Your task to perform on an android device: Do I have any events today? Image 0: 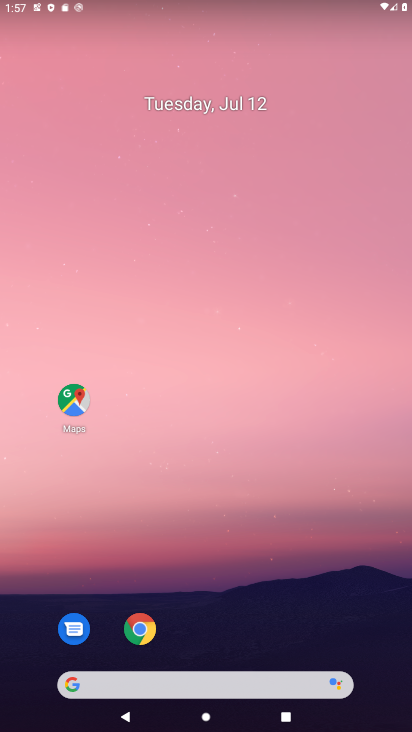
Step 0: drag from (322, 607) to (255, 116)
Your task to perform on an android device: Do I have any events today? Image 1: 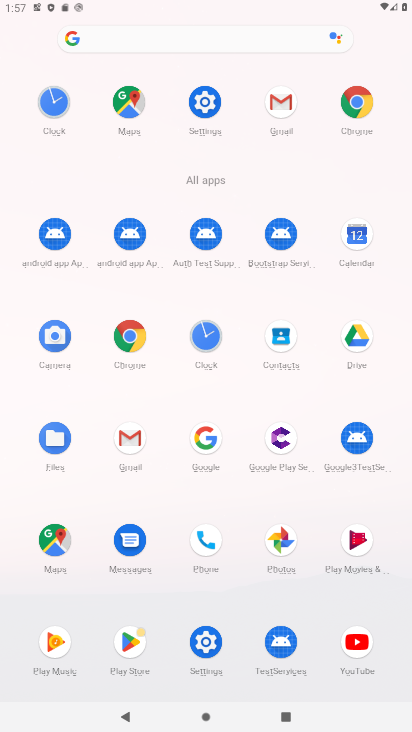
Step 1: click (362, 247)
Your task to perform on an android device: Do I have any events today? Image 2: 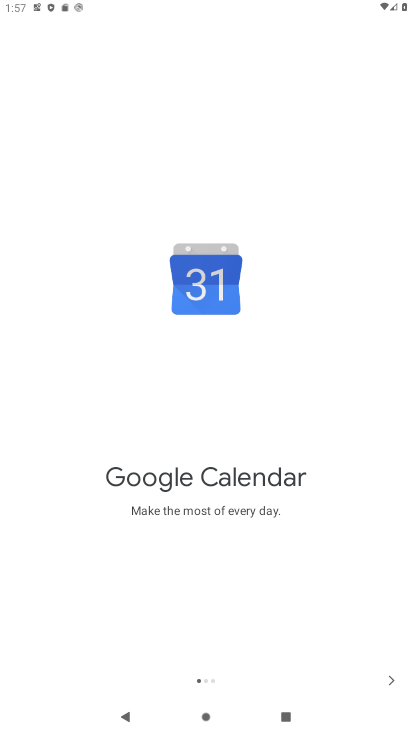
Step 2: click (388, 680)
Your task to perform on an android device: Do I have any events today? Image 3: 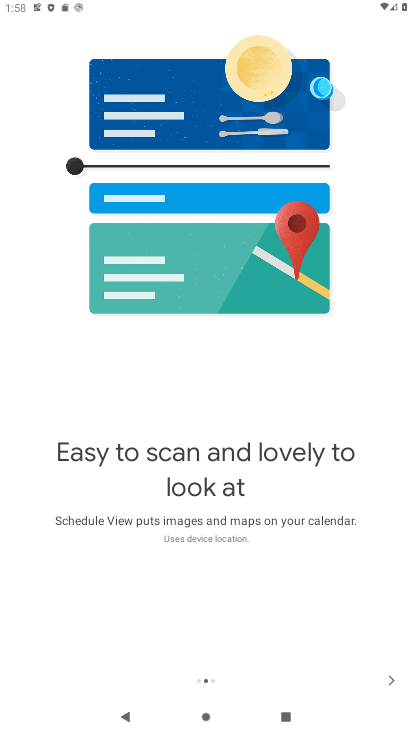
Step 3: click (388, 676)
Your task to perform on an android device: Do I have any events today? Image 4: 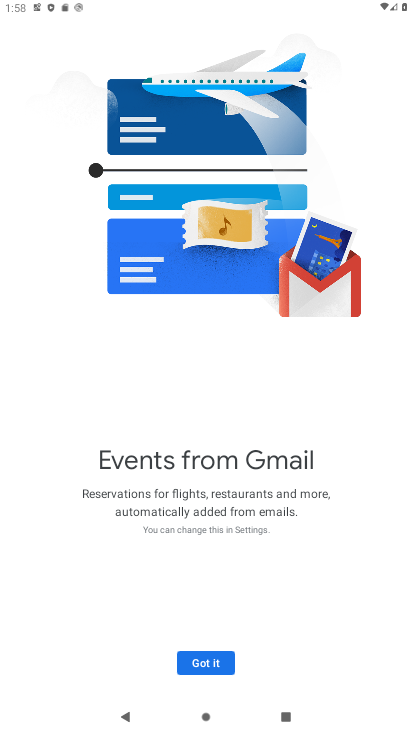
Step 4: click (223, 662)
Your task to perform on an android device: Do I have any events today? Image 5: 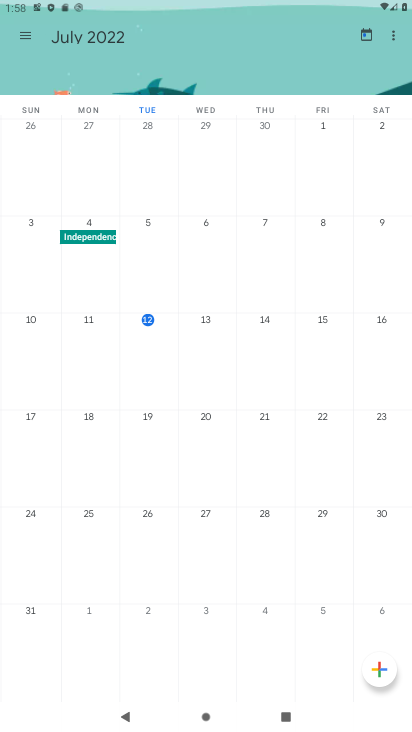
Step 5: click (27, 34)
Your task to perform on an android device: Do I have any events today? Image 6: 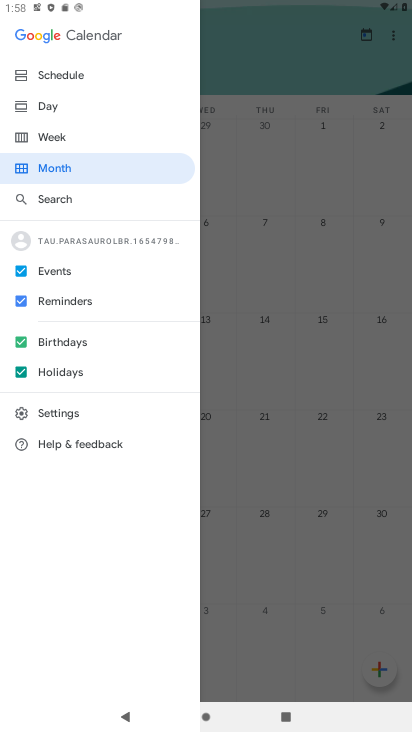
Step 6: click (20, 373)
Your task to perform on an android device: Do I have any events today? Image 7: 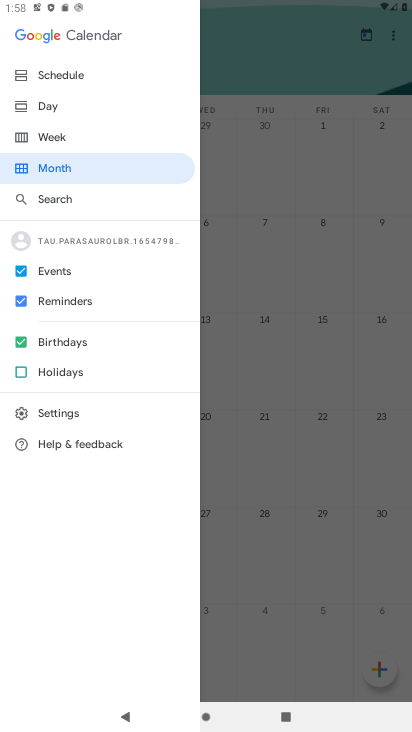
Step 7: click (21, 338)
Your task to perform on an android device: Do I have any events today? Image 8: 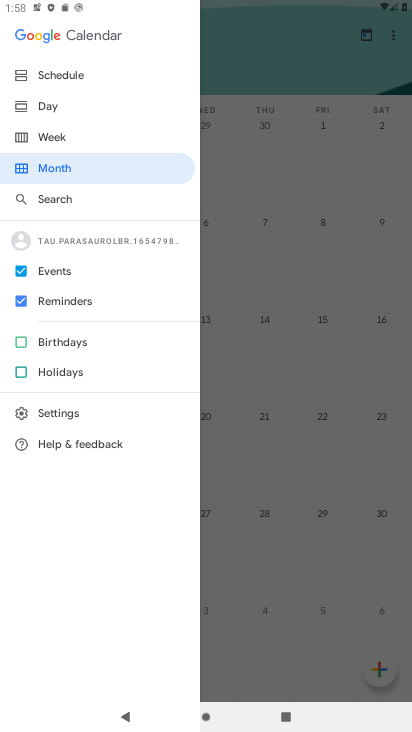
Step 8: click (20, 302)
Your task to perform on an android device: Do I have any events today? Image 9: 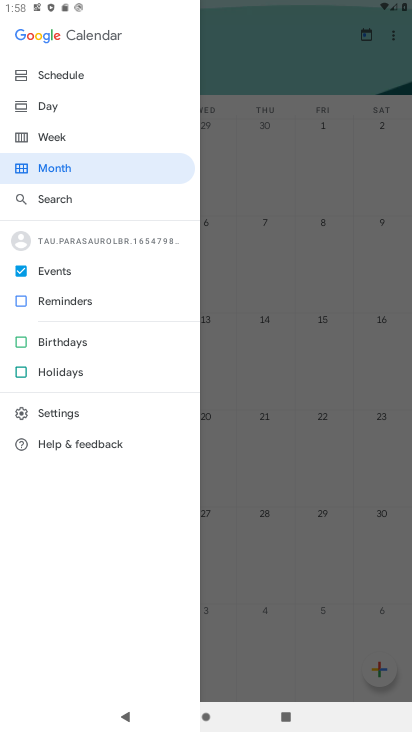
Step 9: click (48, 99)
Your task to perform on an android device: Do I have any events today? Image 10: 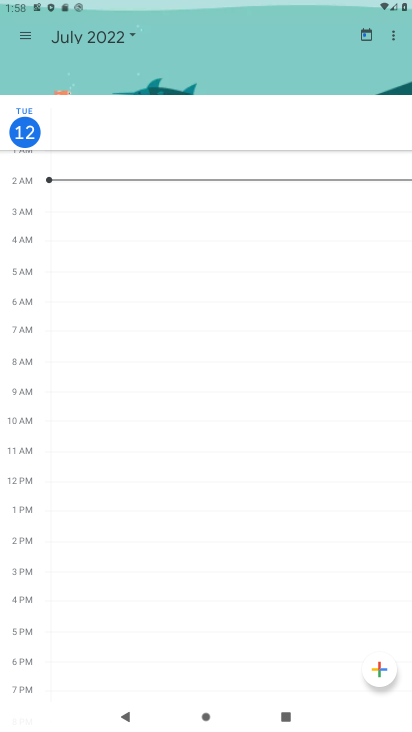
Step 10: task complete